Your task to perform on an android device: Turn off the flashlight Image 0: 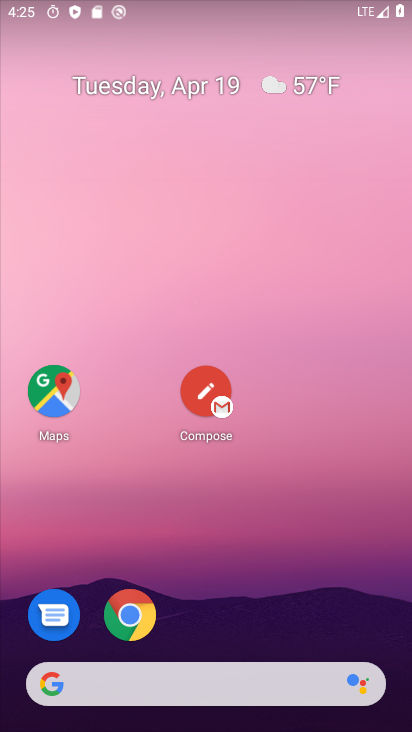
Step 0: drag from (311, 649) to (316, 82)
Your task to perform on an android device: Turn off the flashlight Image 1: 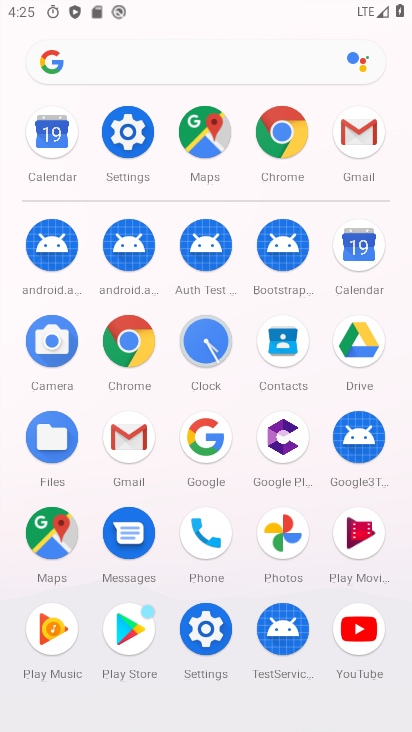
Step 1: task complete